Your task to perform on an android device: Open Youtube and go to "Your channel" Image 0: 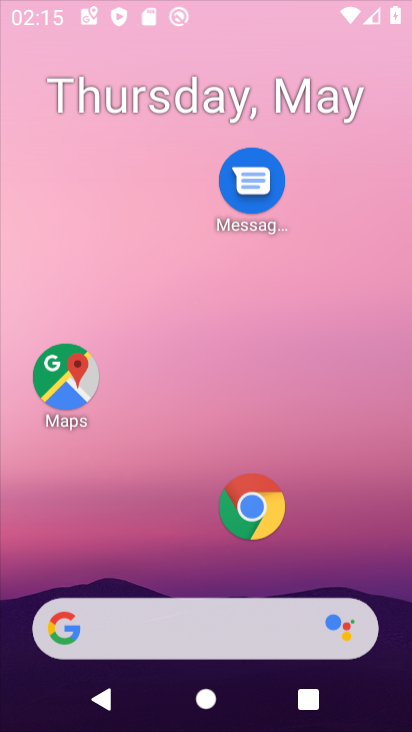
Step 0: drag from (321, 111) to (337, 24)
Your task to perform on an android device: Open Youtube and go to "Your channel" Image 1: 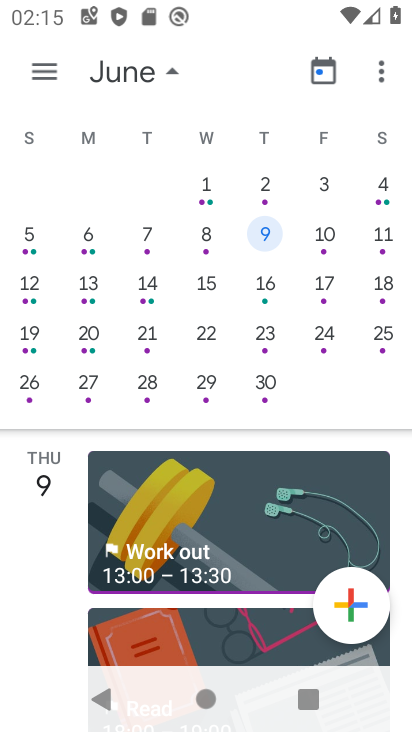
Step 1: press home button
Your task to perform on an android device: Open Youtube and go to "Your channel" Image 2: 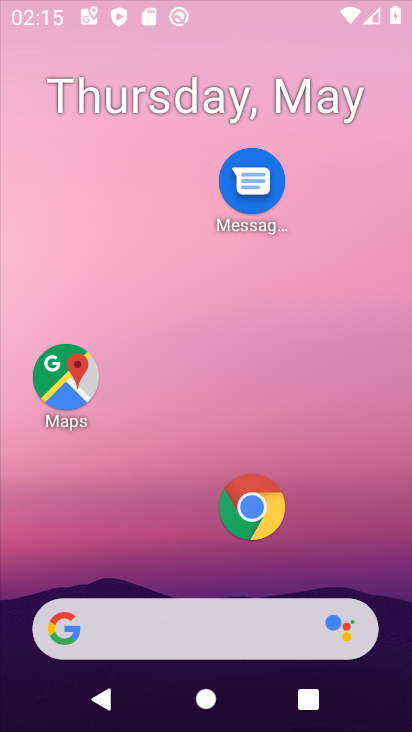
Step 2: drag from (291, 477) to (343, 50)
Your task to perform on an android device: Open Youtube and go to "Your channel" Image 3: 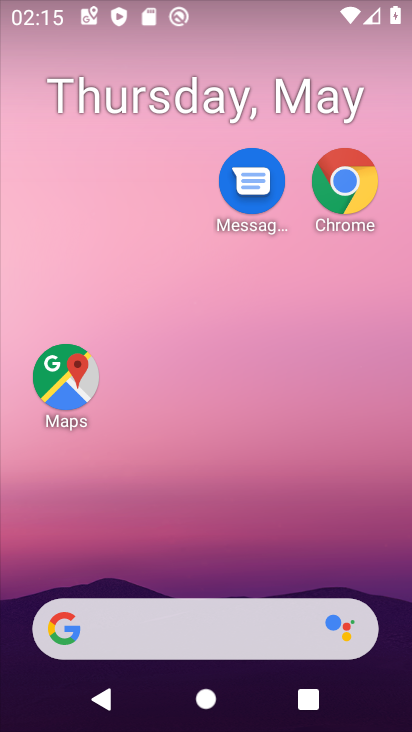
Step 3: drag from (289, 645) to (380, 0)
Your task to perform on an android device: Open Youtube and go to "Your channel" Image 4: 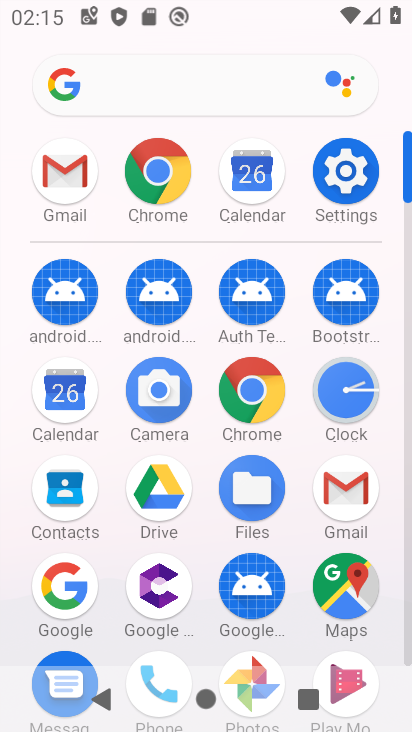
Step 4: drag from (305, 616) to (361, 164)
Your task to perform on an android device: Open Youtube and go to "Your channel" Image 5: 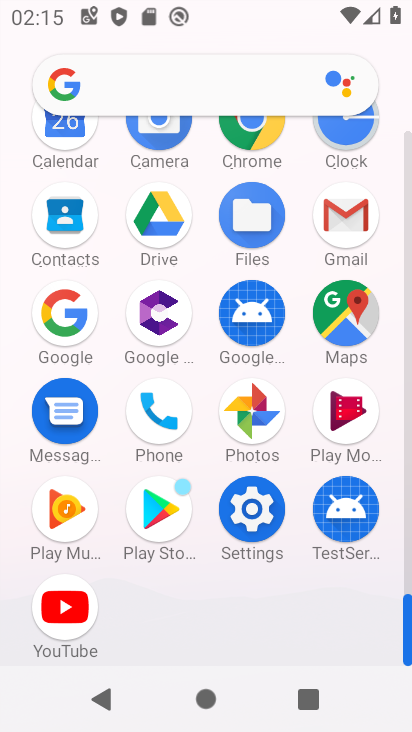
Step 5: click (70, 604)
Your task to perform on an android device: Open Youtube and go to "Your channel" Image 6: 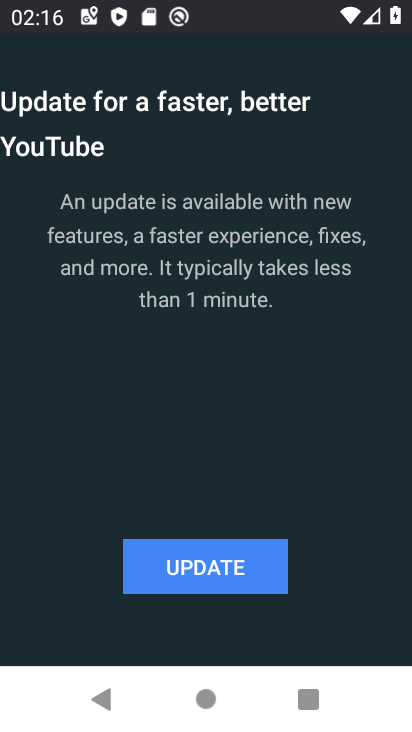
Step 6: press home button
Your task to perform on an android device: Open Youtube and go to "Your channel" Image 7: 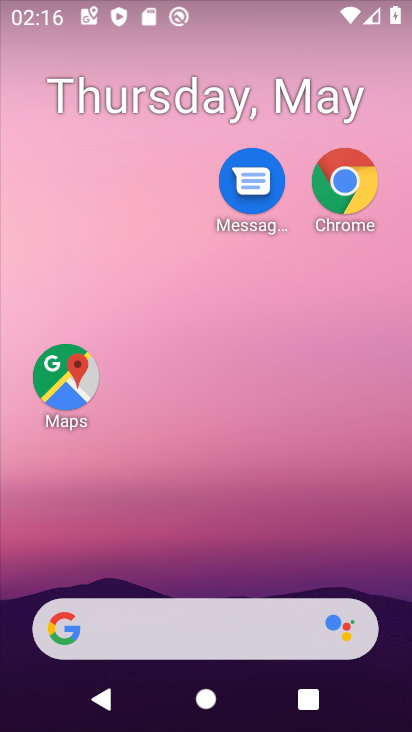
Step 7: drag from (376, 635) to (309, 39)
Your task to perform on an android device: Open Youtube and go to "Your channel" Image 8: 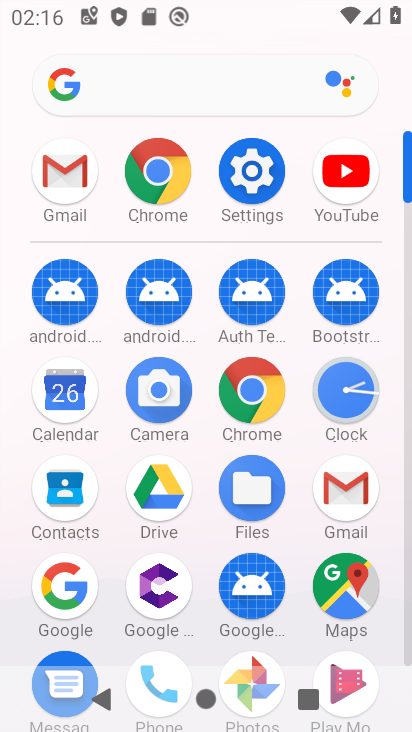
Step 8: drag from (278, 537) to (299, 117)
Your task to perform on an android device: Open Youtube and go to "Your channel" Image 9: 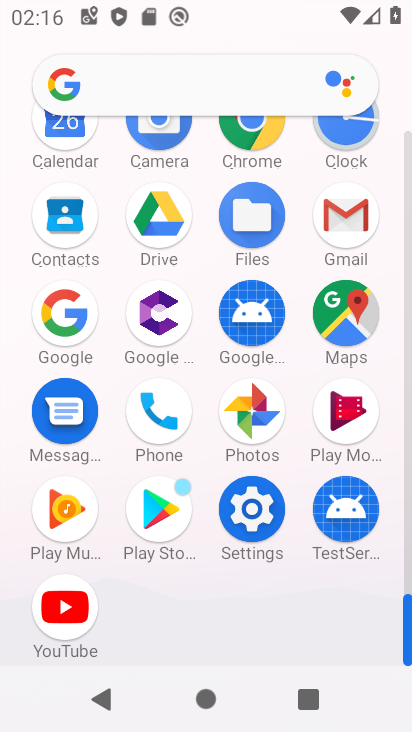
Step 9: click (75, 621)
Your task to perform on an android device: Open Youtube and go to "Your channel" Image 10: 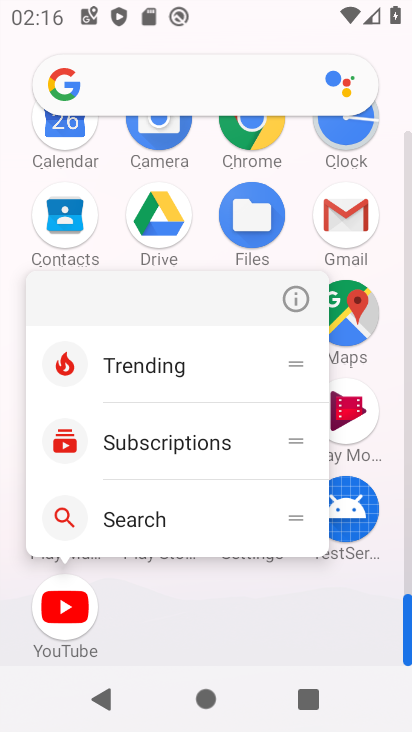
Step 10: click (66, 607)
Your task to perform on an android device: Open Youtube and go to "Your channel" Image 11: 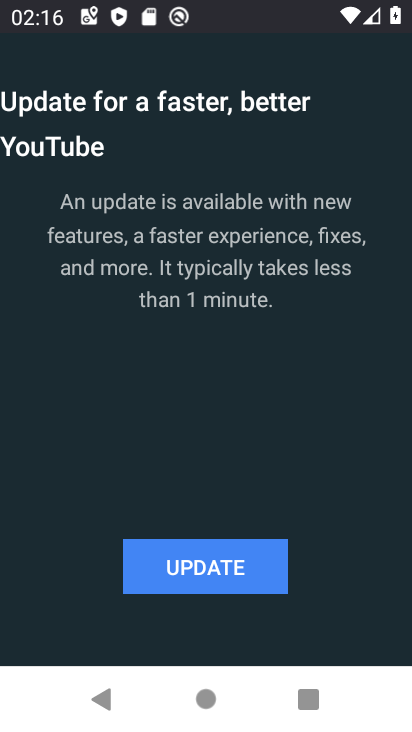
Step 11: click (217, 577)
Your task to perform on an android device: Open Youtube and go to "Your channel" Image 12: 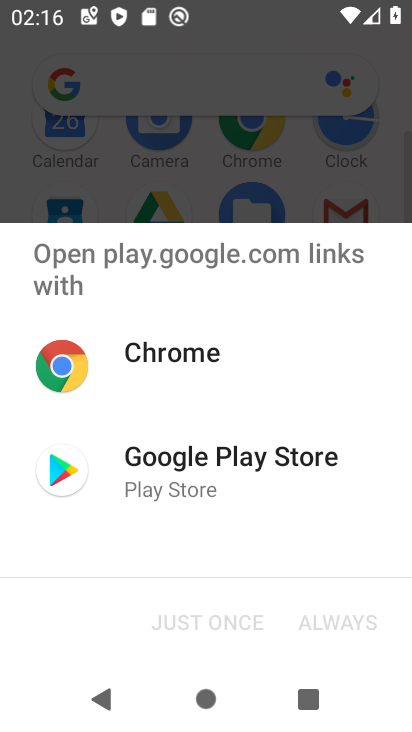
Step 12: click (178, 475)
Your task to perform on an android device: Open Youtube and go to "Your channel" Image 13: 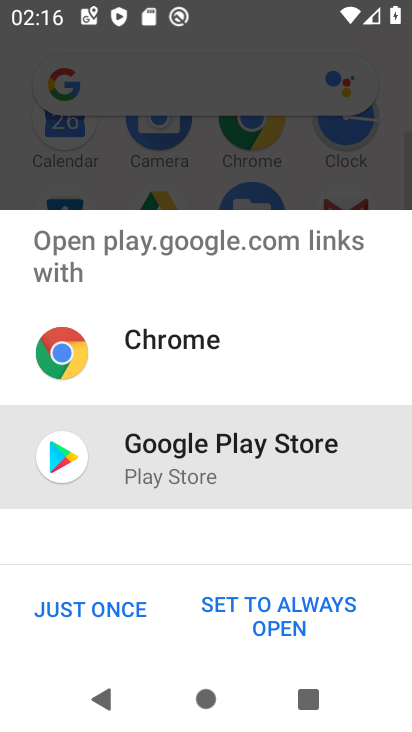
Step 13: click (104, 611)
Your task to perform on an android device: Open Youtube and go to "Your channel" Image 14: 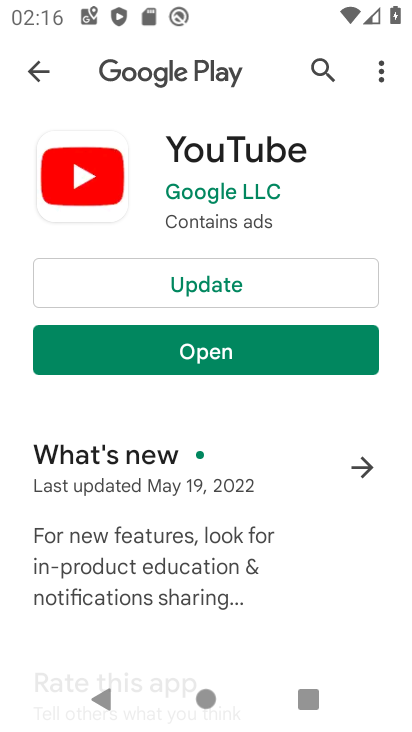
Step 14: click (323, 288)
Your task to perform on an android device: Open Youtube and go to "Your channel" Image 15: 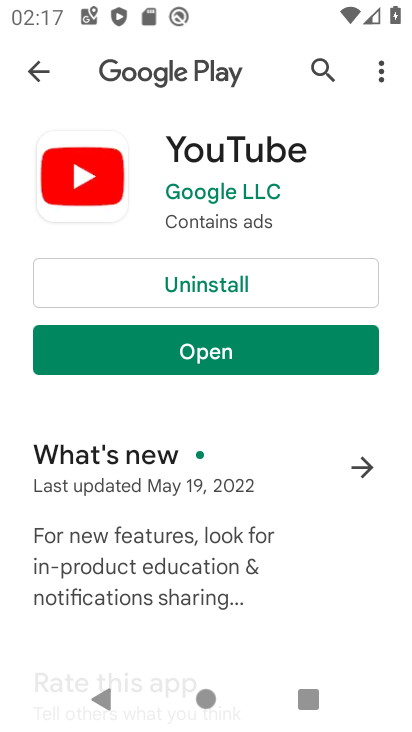
Step 15: click (223, 361)
Your task to perform on an android device: Open Youtube and go to "Your channel" Image 16: 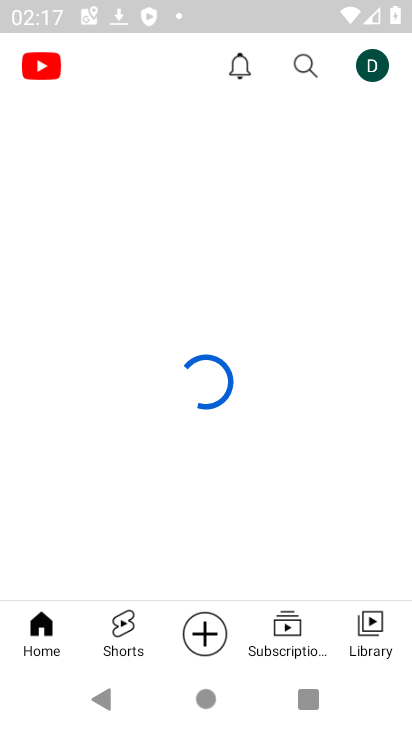
Step 16: click (378, 62)
Your task to perform on an android device: Open Youtube and go to "Your channel" Image 17: 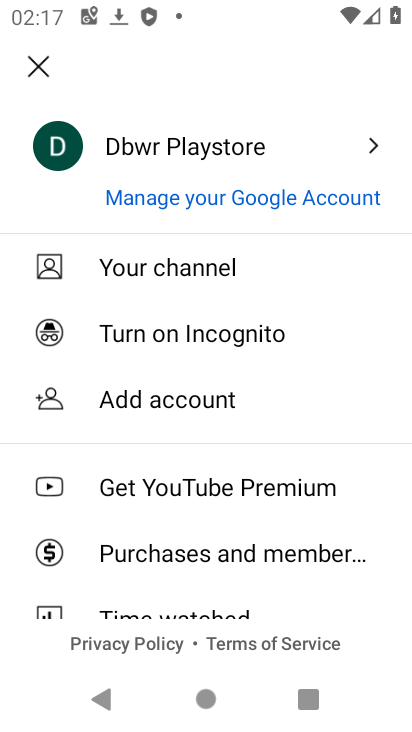
Step 17: click (200, 269)
Your task to perform on an android device: Open Youtube and go to "Your channel" Image 18: 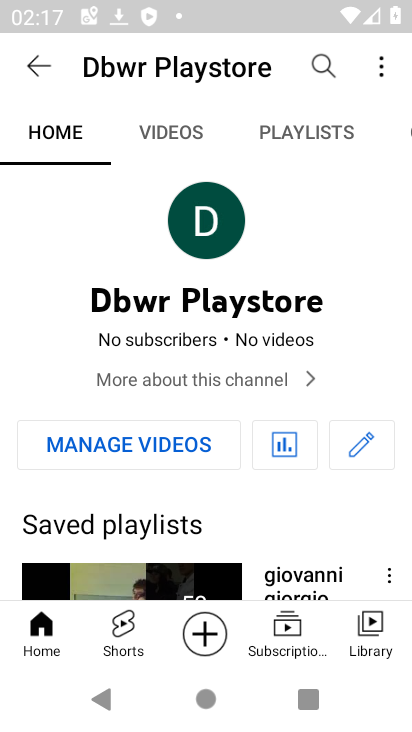
Step 18: task complete